Your task to perform on an android device: check google app version Image 0: 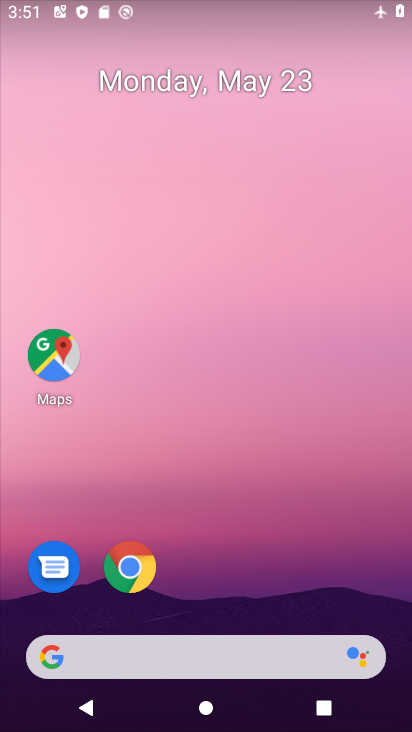
Step 0: click (134, 568)
Your task to perform on an android device: check google app version Image 1: 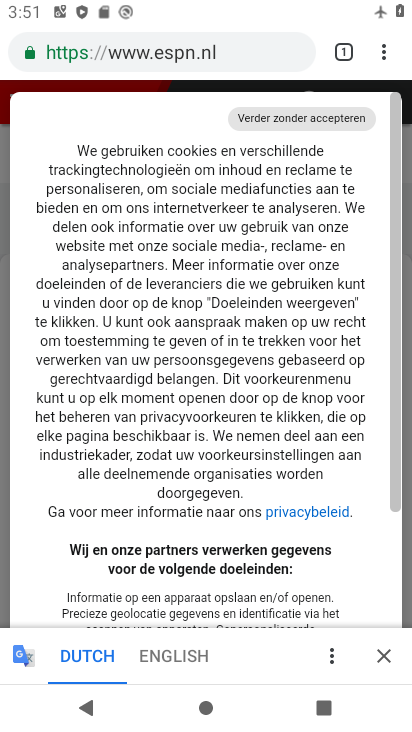
Step 1: click (383, 58)
Your task to perform on an android device: check google app version Image 2: 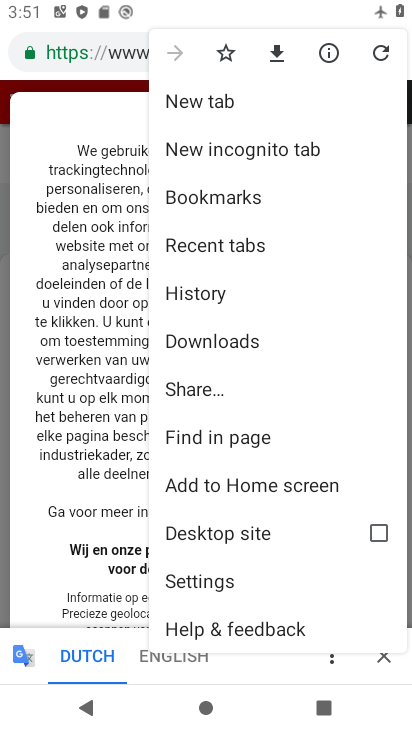
Step 2: drag from (311, 559) to (278, 167)
Your task to perform on an android device: check google app version Image 3: 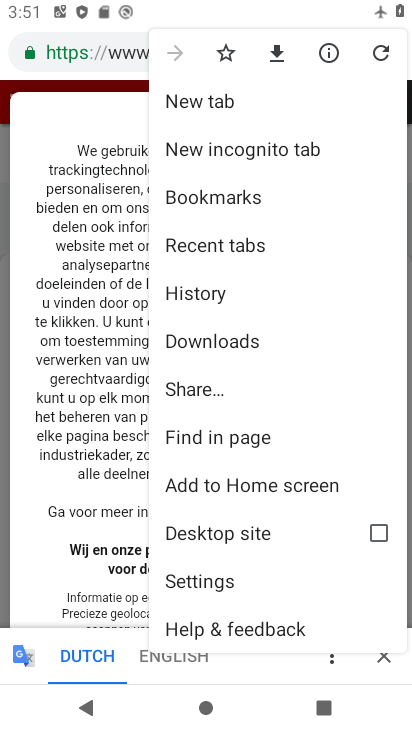
Step 3: click (209, 578)
Your task to perform on an android device: check google app version Image 4: 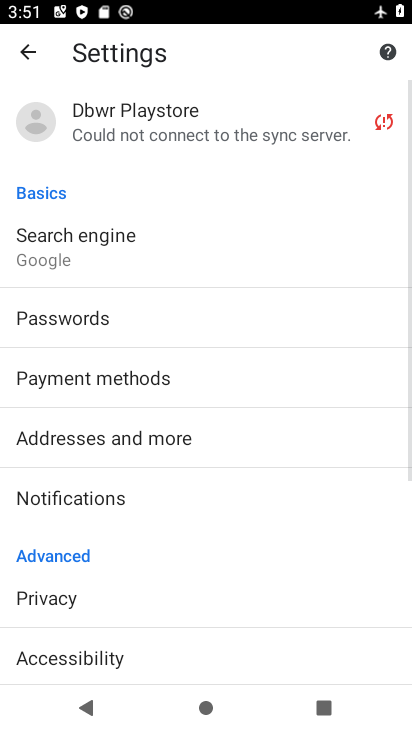
Step 4: drag from (196, 644) to (170, 232)
Your task to perform on an android device: check google app version Image 5: 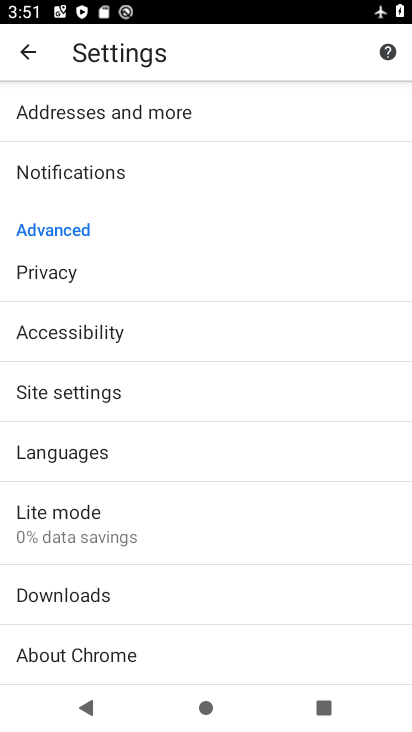
Step 5: click (107, 654)
Your task to perform on an android device: check google app version Image 6: 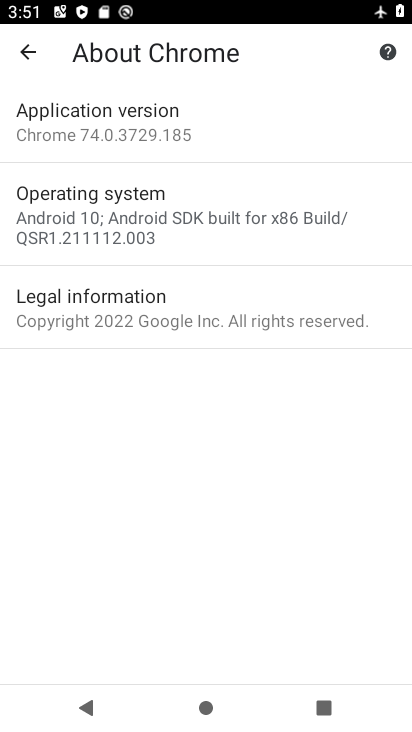
Step 6: click (97, 106)
Your task to perform on an android device: check google app version Image 7: 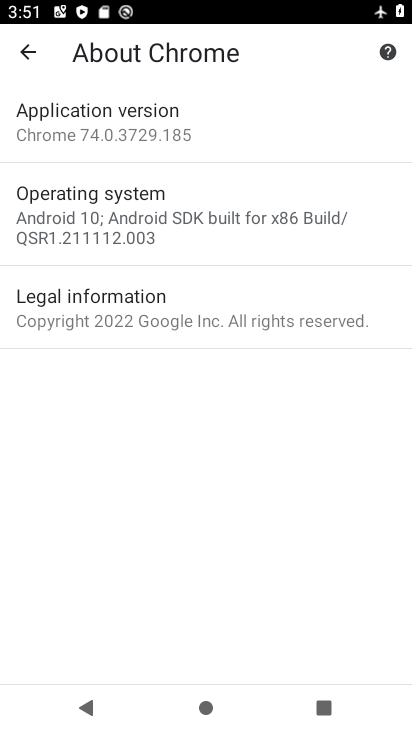
Step 7: task complete